Your task to perform on an android device: Go to Amazon Image 0: 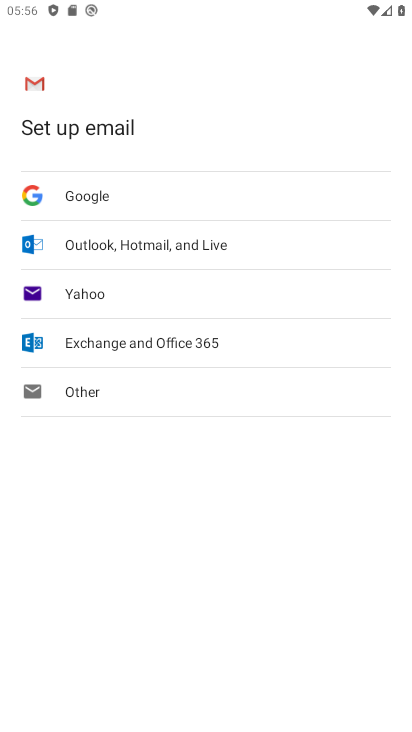
Step 0: press home button
Your task to perform on an android device: Go to Amazon Image 1: 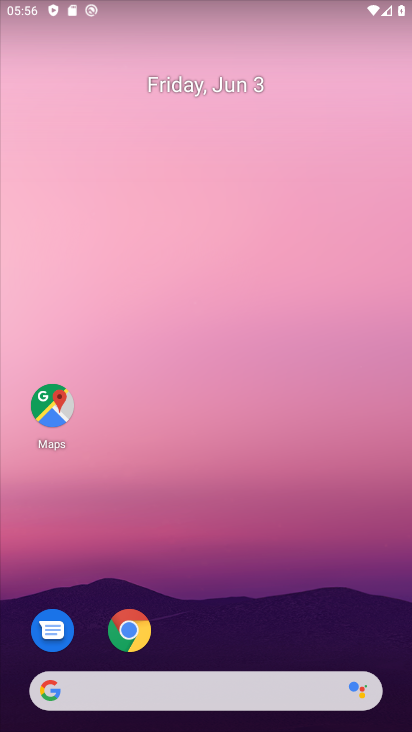
Step 1: click (134, 641)
Your task to perform on an android device: Go to Amazon Image 2: 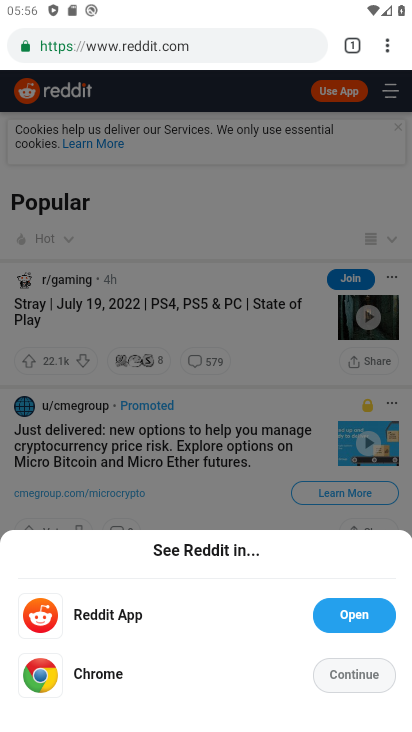
Step 2: click (356, 39)
Your task to perform on an android device: Go to Amazon Image 3: 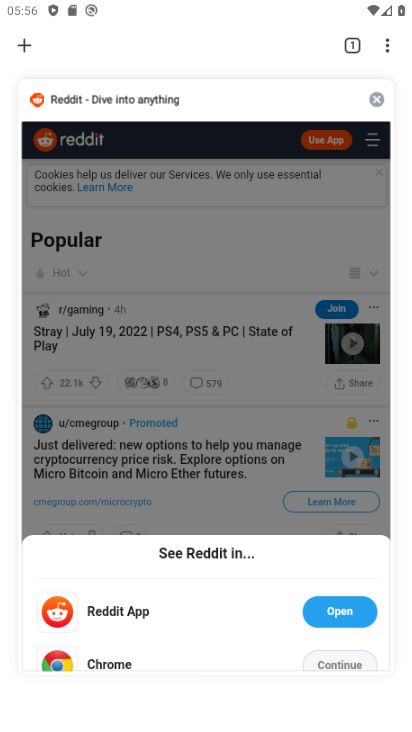
Step 3: click (21, 46)
Your task to perform on an android device: Go to Amazon Image 4: 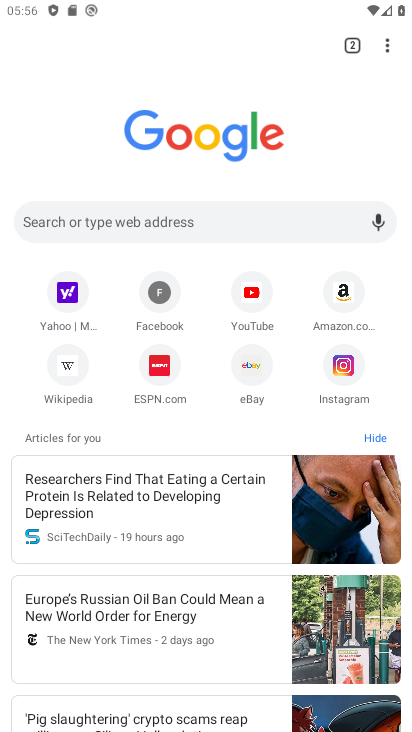
Step 4: click (354, 302)
Your task to perform on an android device: Go to Amazon Image 5: 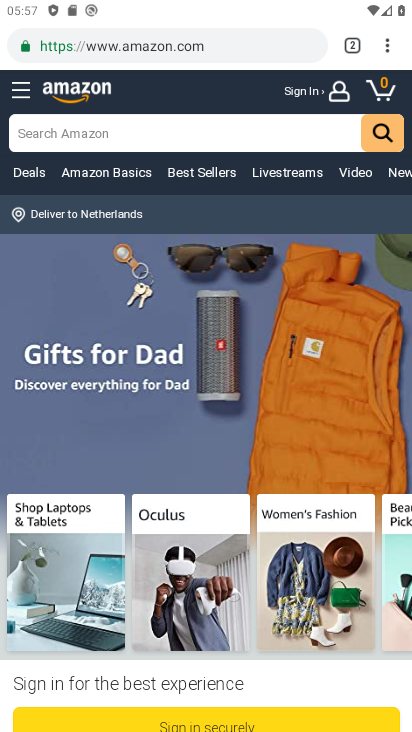
Step 5: task complete